Your task to perform on an android device: turn on notifications settings in the gmail app Image 0: 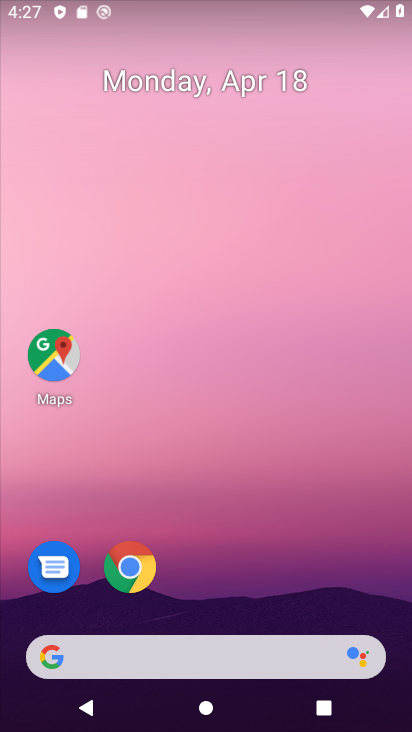
Step 0: drag from (219, 645) to (278, 166)
Your task to perform on an android device: turn on notifications settings in the gmail app Image 1: 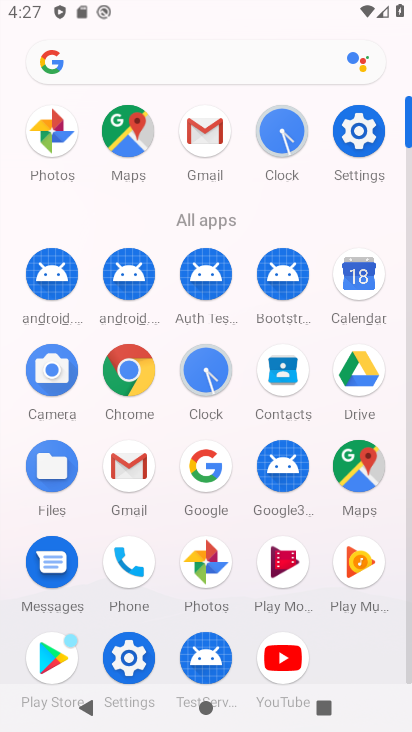
Step 1: click (202, 140)
Your task to perform on an android device: turn on notifications settings in the gmail app Image 2: 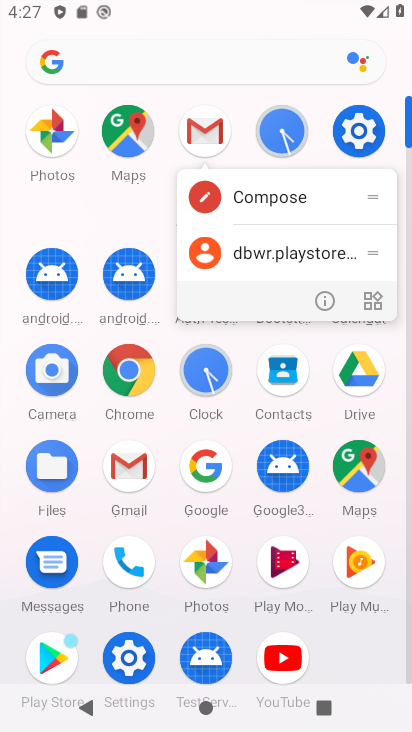
Step 2: click (202, 140)
Your task to perform on an android device: turn on notifications settings in the gmail app Image 3: 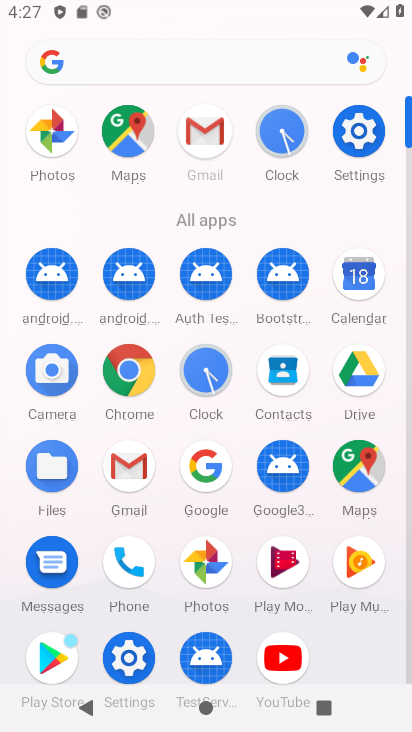
Step 3: click (202, 140)
Your task to perform on an android device: turn on notifications settings in the gmail app Image 4: 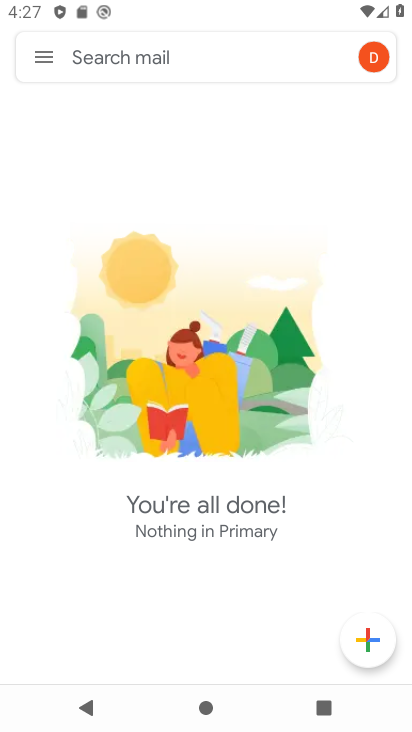
Step 4: click (43, 58)
Your task to perform on an android device: turn on notifications settings in the gmail app Image 5: 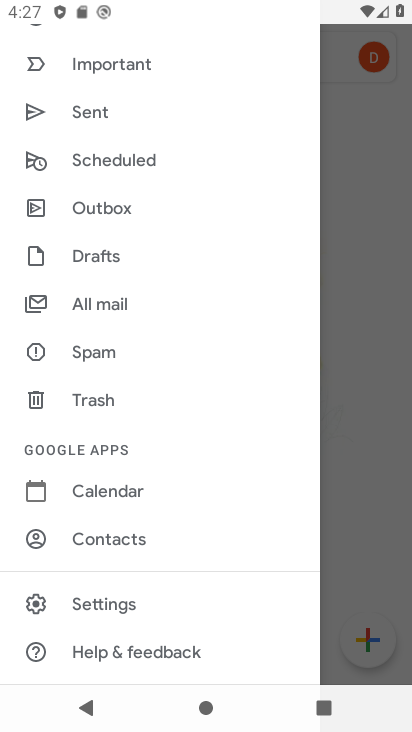
Step 5: click (115, 602)
Your task to perform on an android device: turn on notifications settings in the gmail app Image 6: 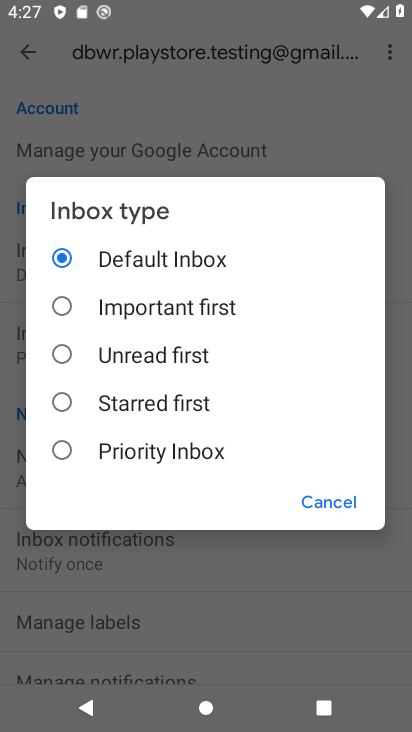
Step 6: click (312, 493)
Your task to perform on an android device: turn on notifications settings in the gmail app Image 7: 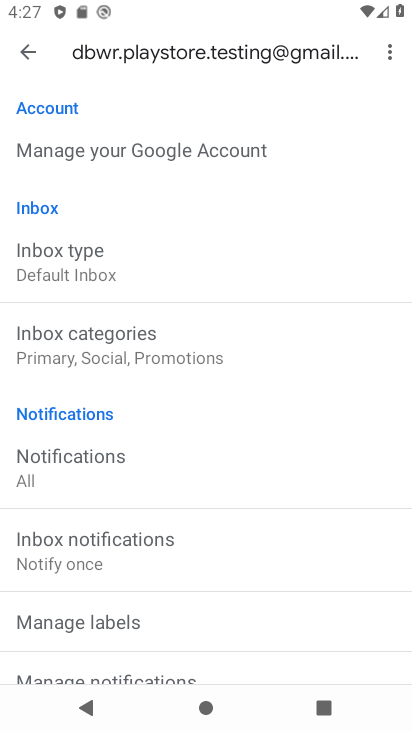
Step 7: click (133, 446)
Your task to perform on an android device: turn on notifications settings in the gmail app Image 8: 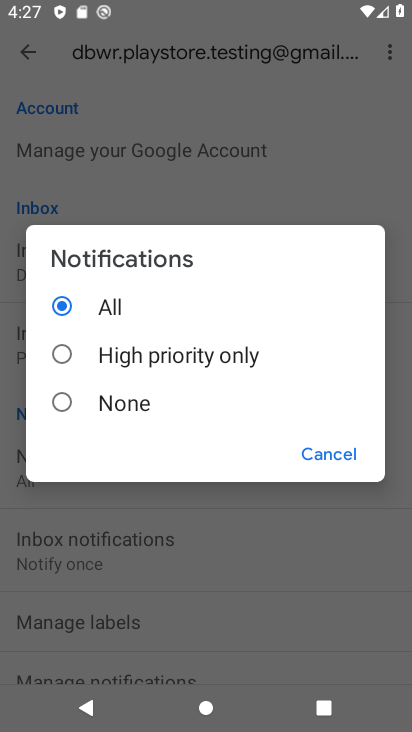
Step 8: task complete